Your task to perform on an android device: Empty the shopping cart on costco.com. Add razer blade to the cart on costco.com, then select checkout. Image 0: 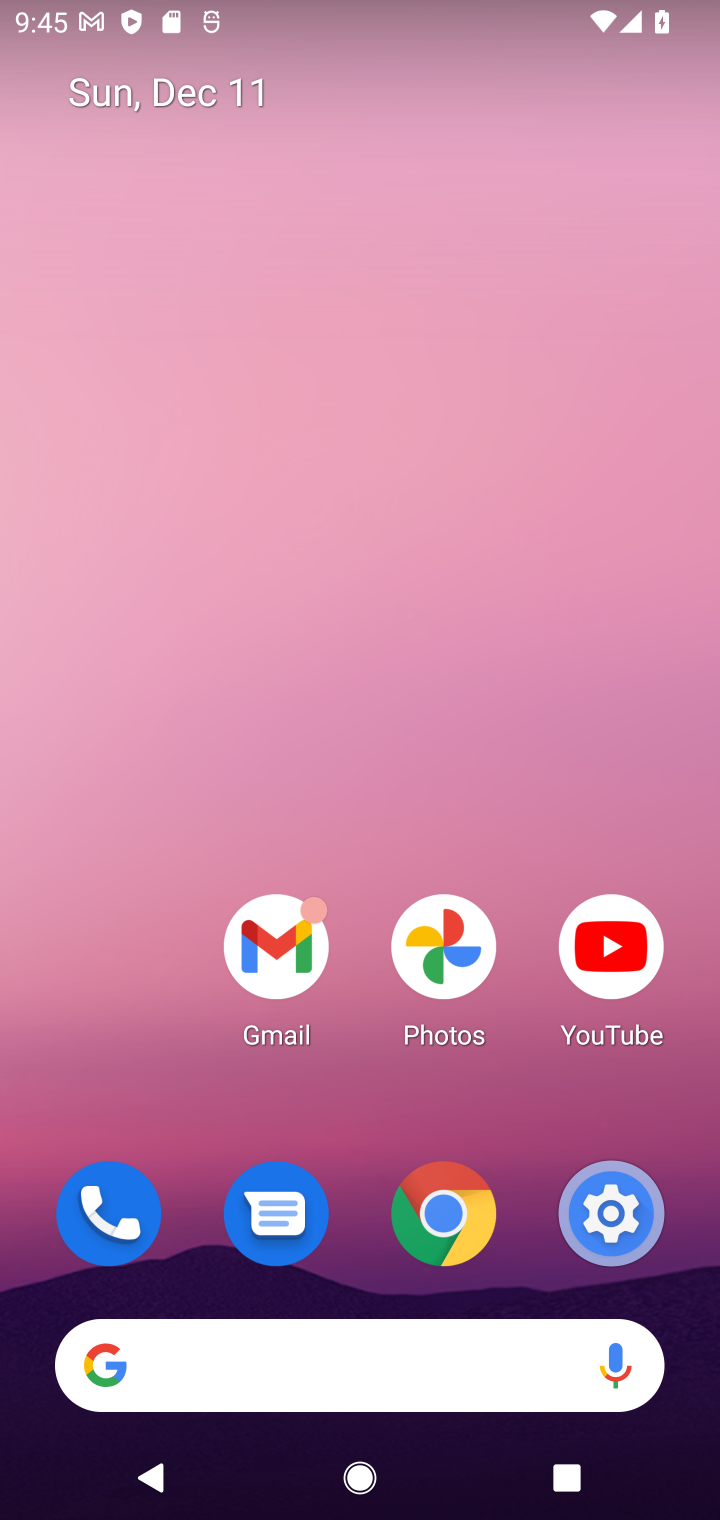
Step 0: click (363, 1390)
Your task to perform on an android device: Empty the shopping cart on costco.com. Add razer blade to the cart on costco.com, then select checkout. Image 1: 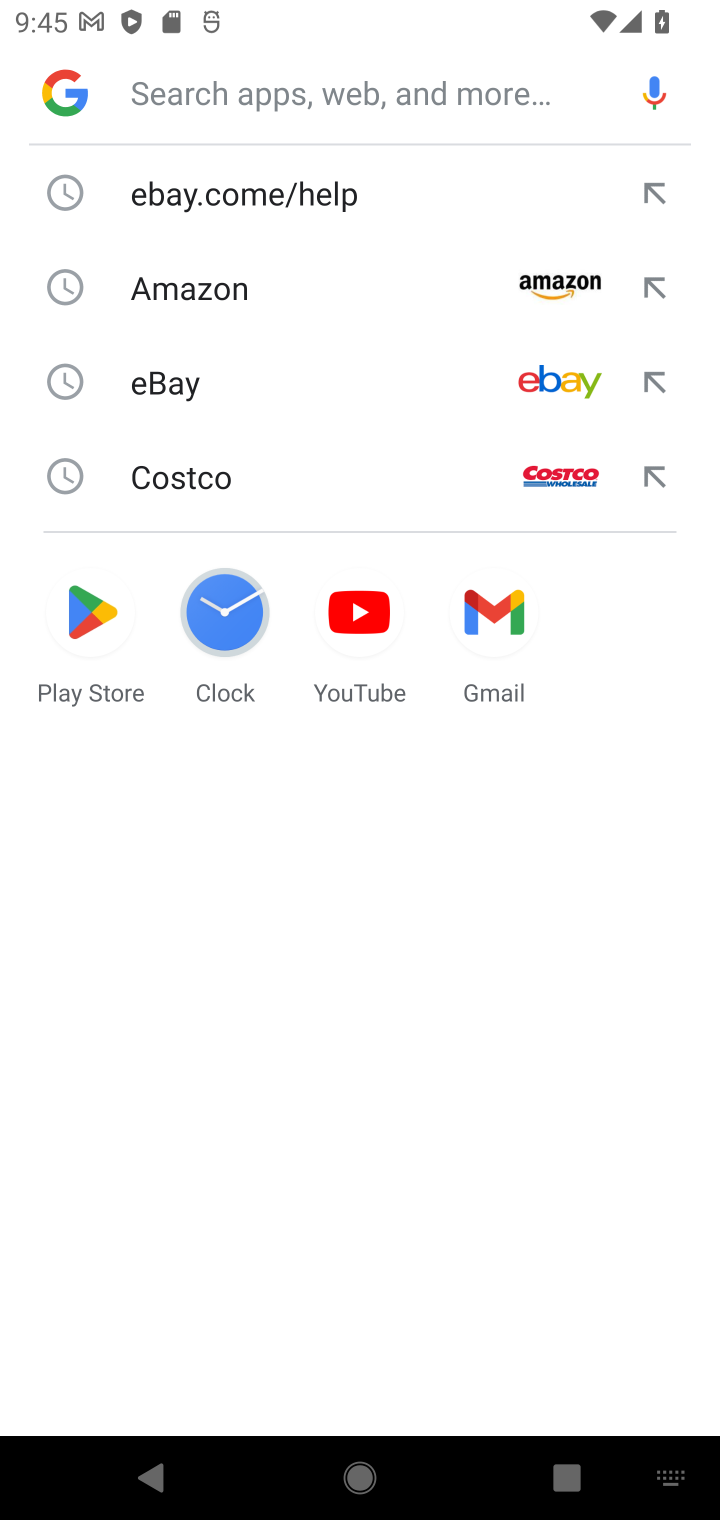
Step 1: click (195, 464)
Your task to perform on an android device: Empty the shopping cart on costco.com. Add razer blade to the cart on costco.com, then select checkout. Image 2: 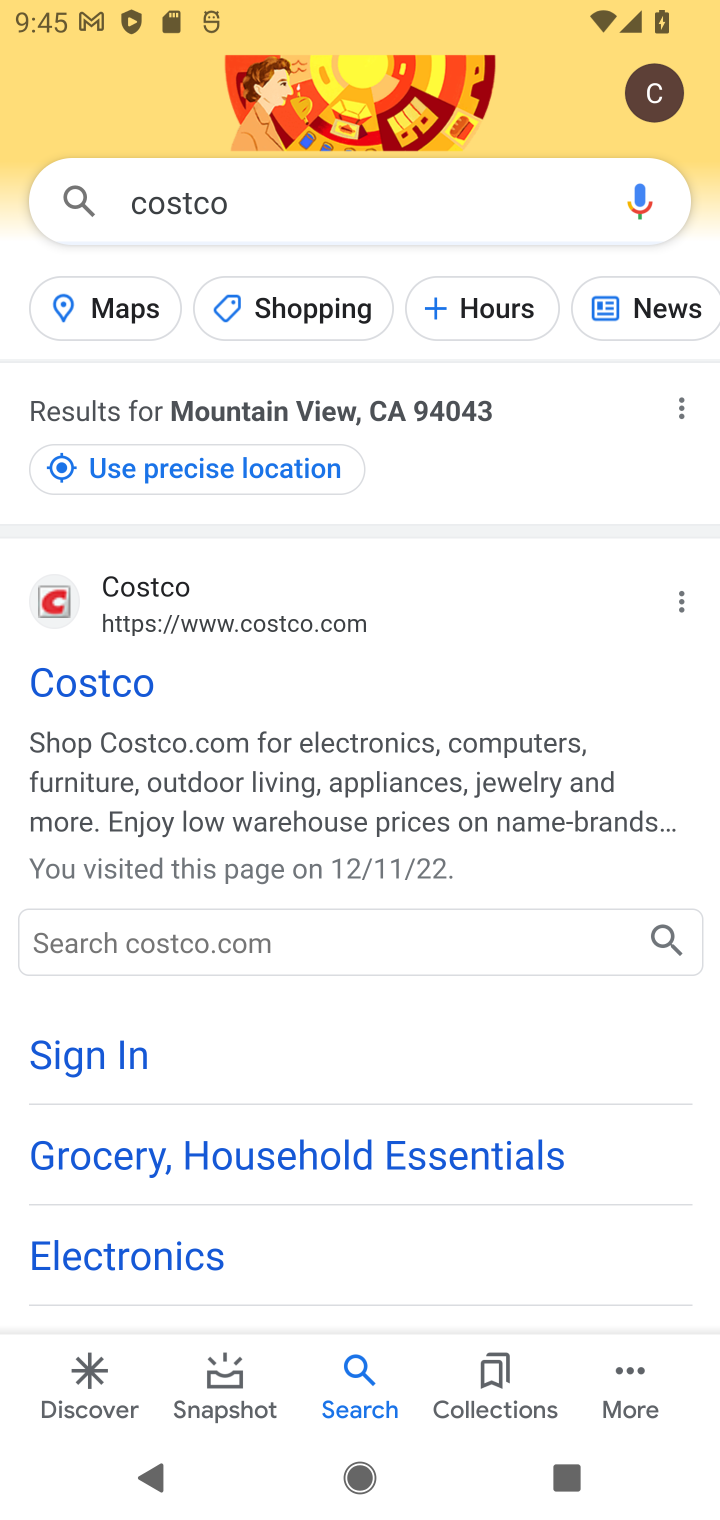
Step 2: click (32, 720)
Your task to perform on an android device: Empty the shopping cart on costco.com. Add razer blade to the cart on costco.com, then select checkout. Image 3: 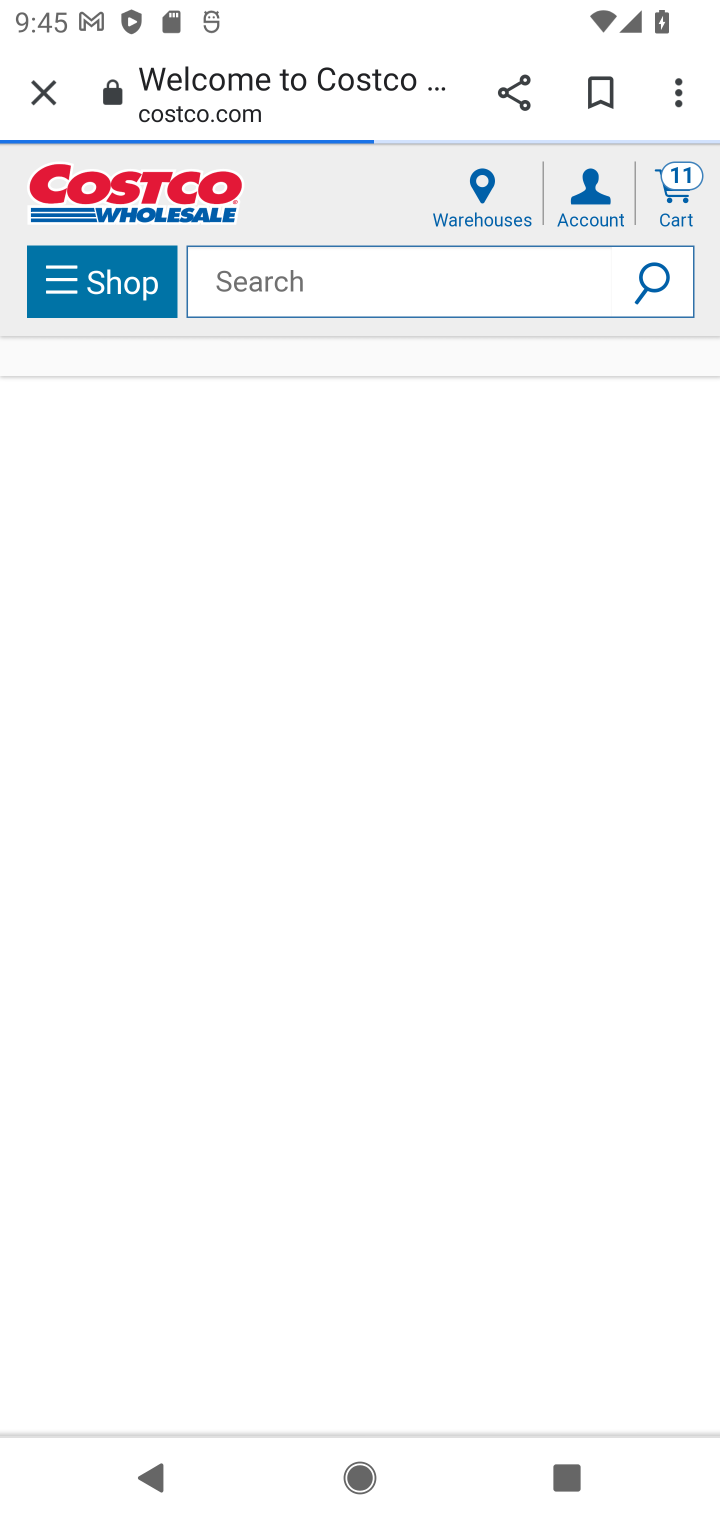
Step 3: click (259, 298)
Your task to perform on an android device: Empty the shopping cart on costco.com. Add razer blade to the cart on costco.com, then select checkout. Image 4: 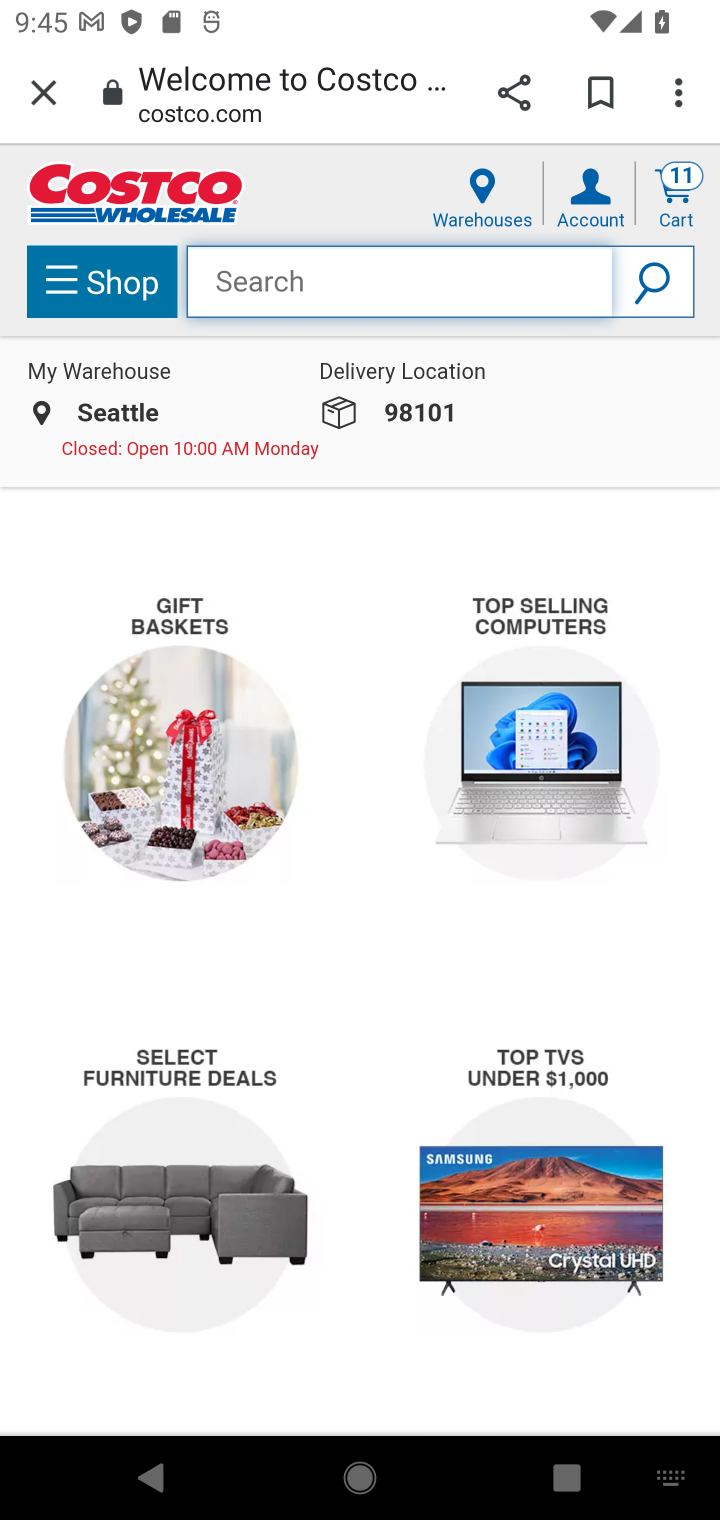
Step 4: type "razer blade"
Your task to perform on an android device: Empty the shopping cart on costco.com. Add razer blade to the cart on costco.com, then select checkout. Image 5: 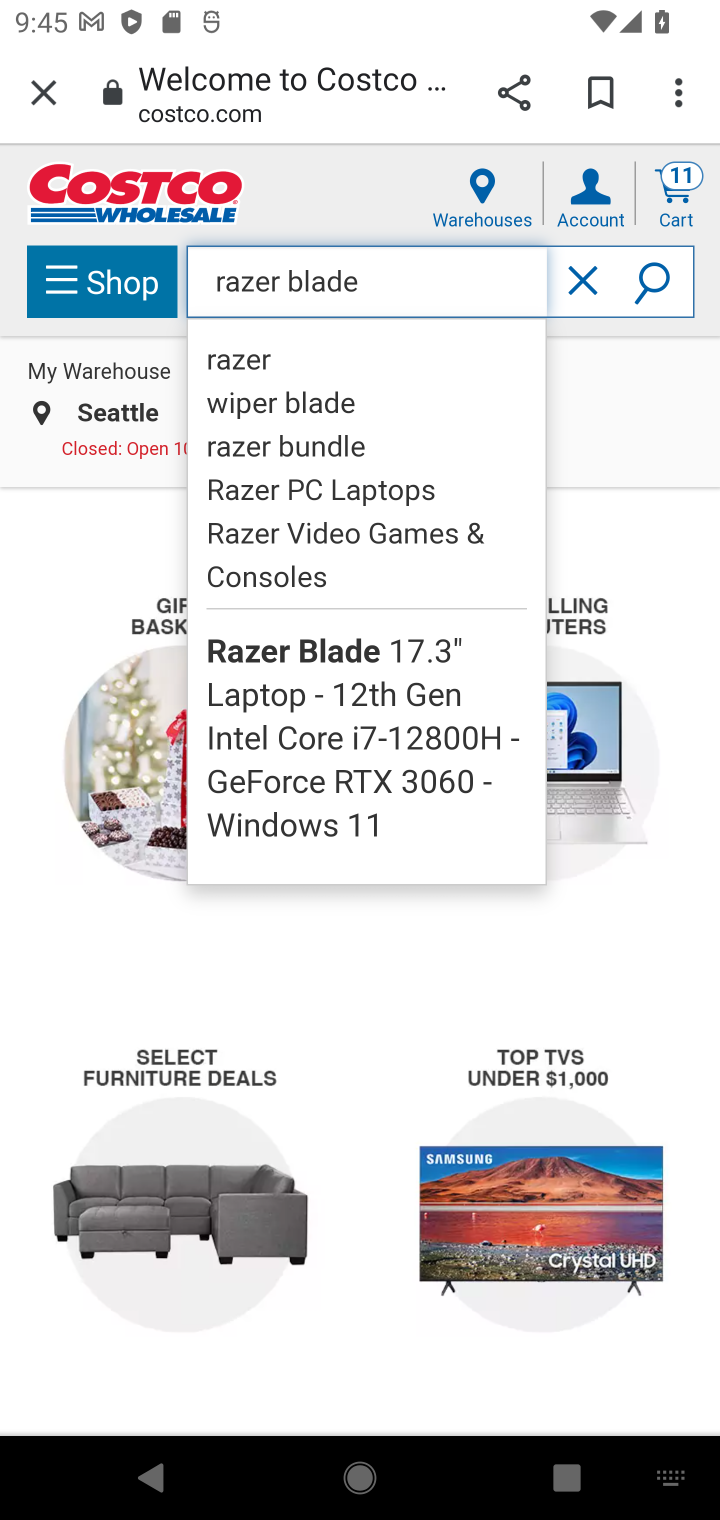
Step 5: click (677, 297)
Your task to perform on an android device: Empty the shopping cart on costco.com. Add razer blade to the cart on costco.com, then select checkout. Image 6: 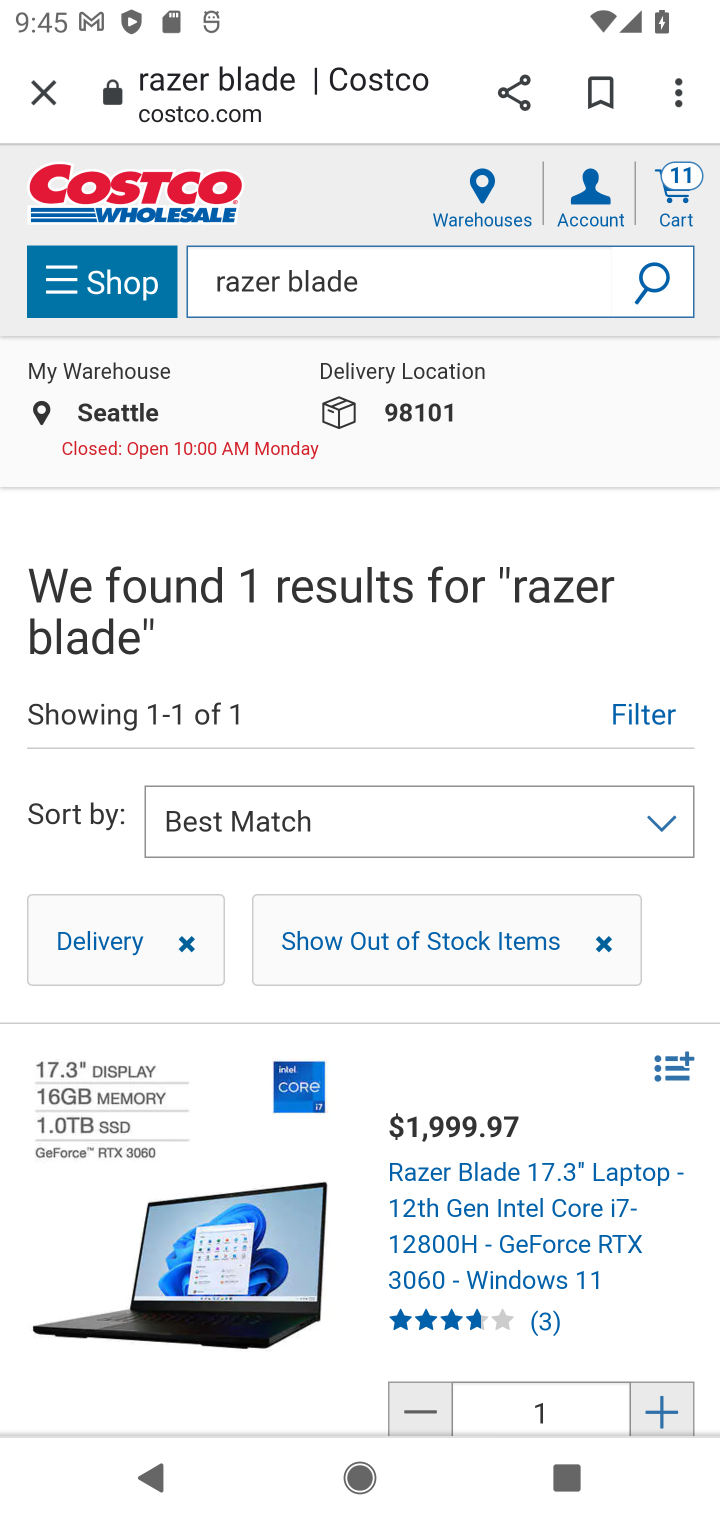
Step 6: click (657, 1412)
Your task to perform on an android device: Empty the shopping cart on costco.com. Add razer blade to the cart on costco.com, then select checkout. Image 7: 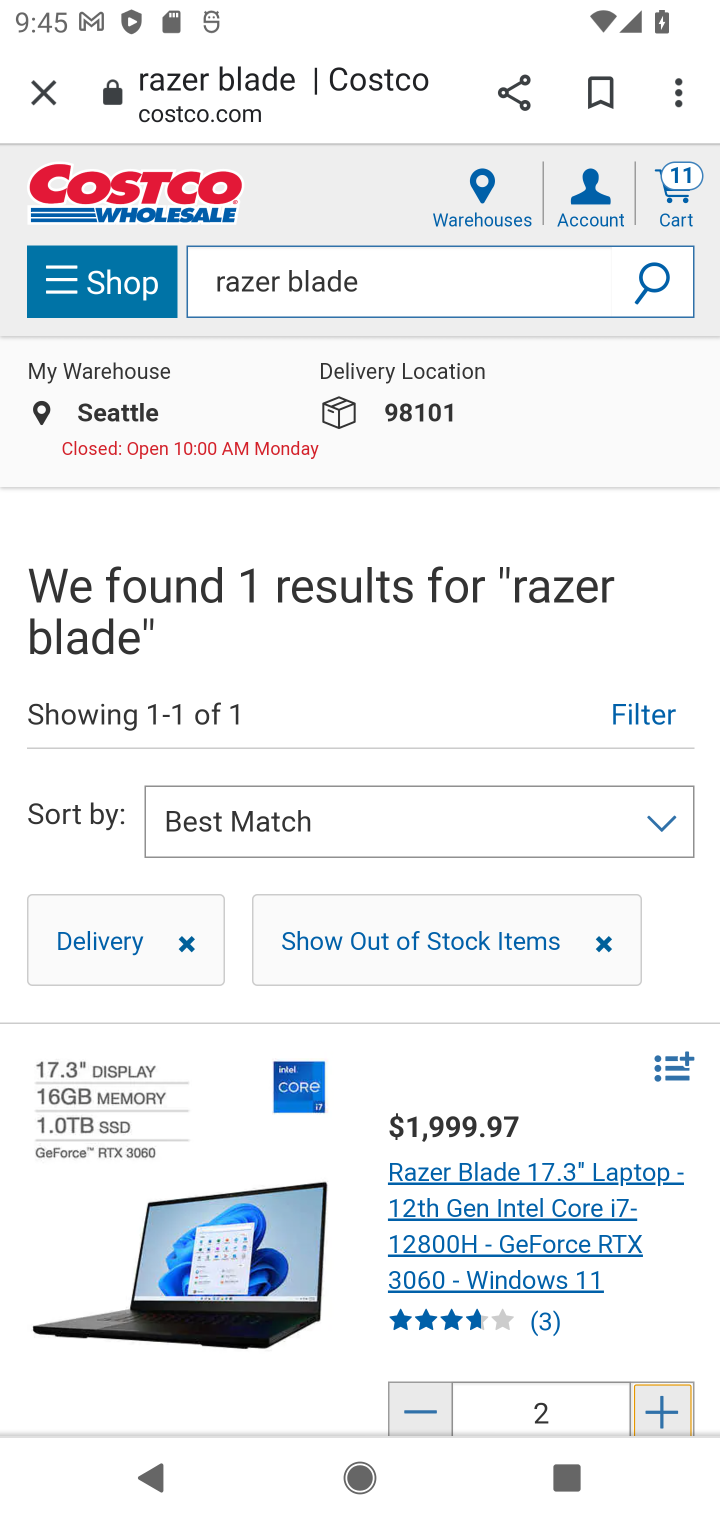
Step 7: task complete